Your task to perform on an android device: Open the Play Movies app and select the watchlist tab. Image 0: 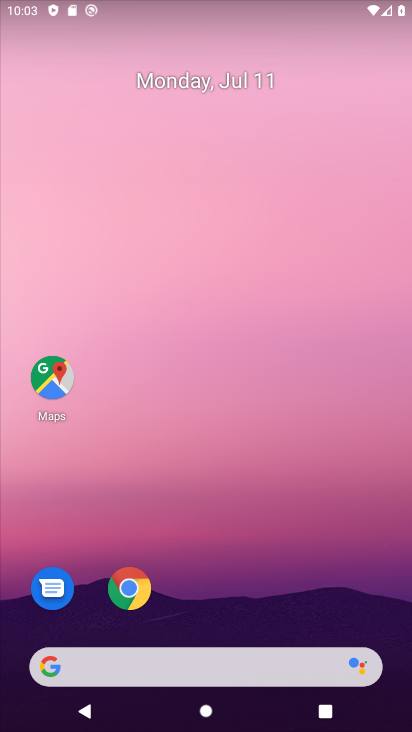
Step 0: drag from (253, 583) to (306, 206)
Your task to perform on an android device: Open the Play Movies app and select the watchlist tab. Image 1: 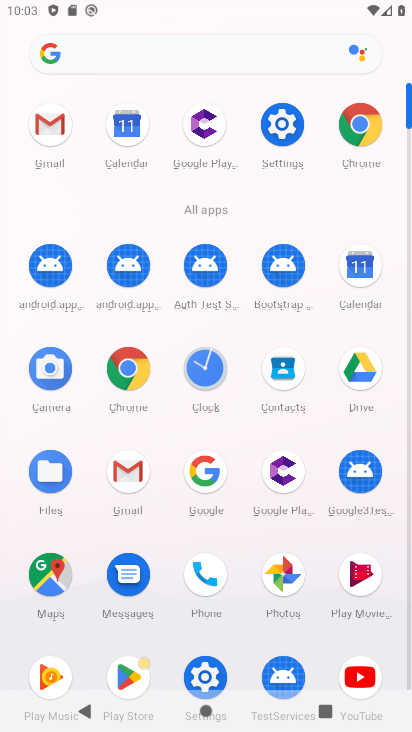
Step 1: click (363, 570)
Your task to perform on an android device: Open the Play Movies app and select the watchlist tab. Image 2: 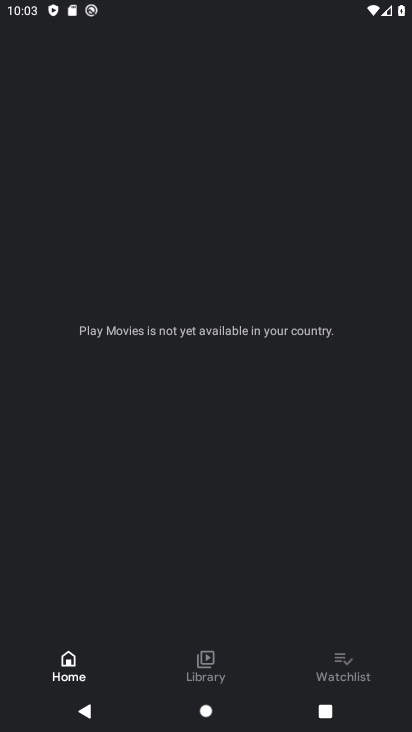
Step 2: click (343, 667)
Your task to perform on an android device: Open the Play Movies app and select the watchlist tab. Image 3: 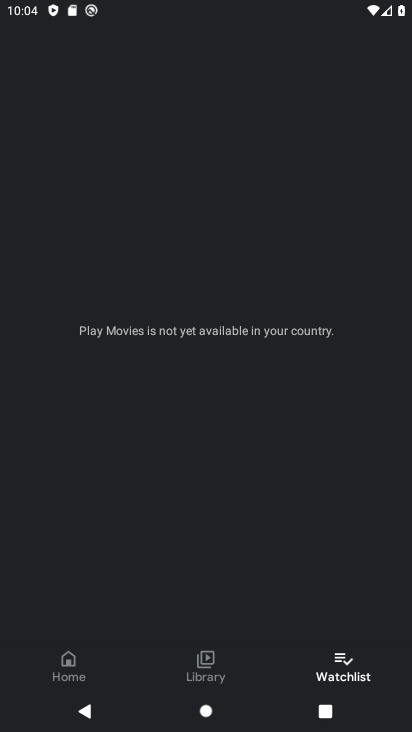
Step 3: task complete